Your task to perform on an android device: Go to location settings Image 0: 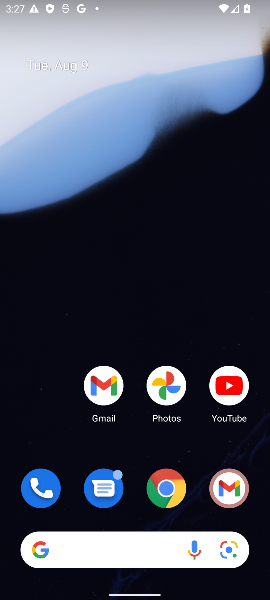
Step 0: drag from (199, 463) to (159, 125)
Your task to perform on an android device: Go to location settings Image 1: 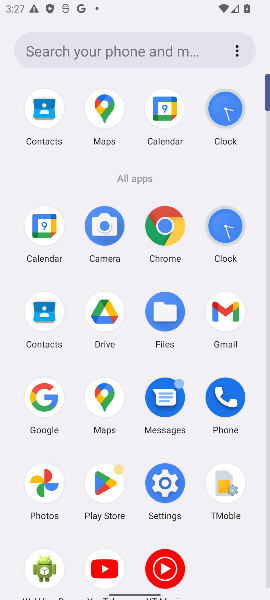
Step 1: click (168, 488)
Your task to perform on an android device: Go to location settings Image 2: 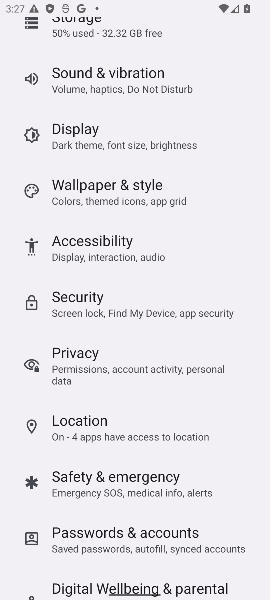
Step 2: click (185, 431)
Your task to perform on an android device: Go to location settings Image 3: 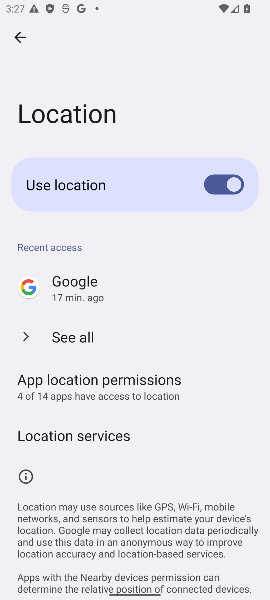
Step 3: task complete